Your task to perform on an android device: change alarm snooze length Image 0: 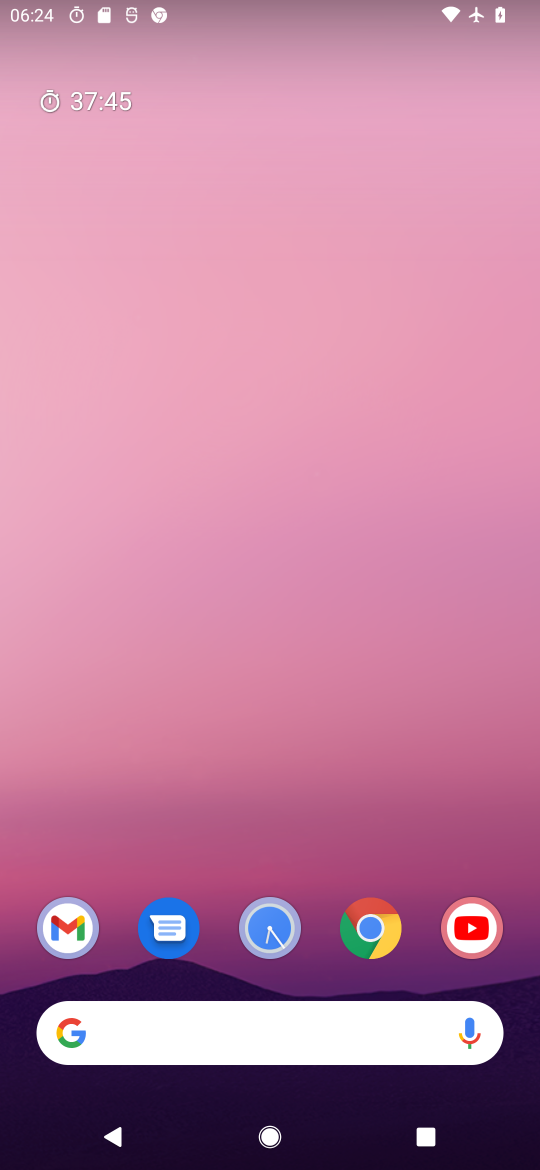
Step 0: click (257, 922)
Your task to perform on an android device: change alarm snooze length Image 1: 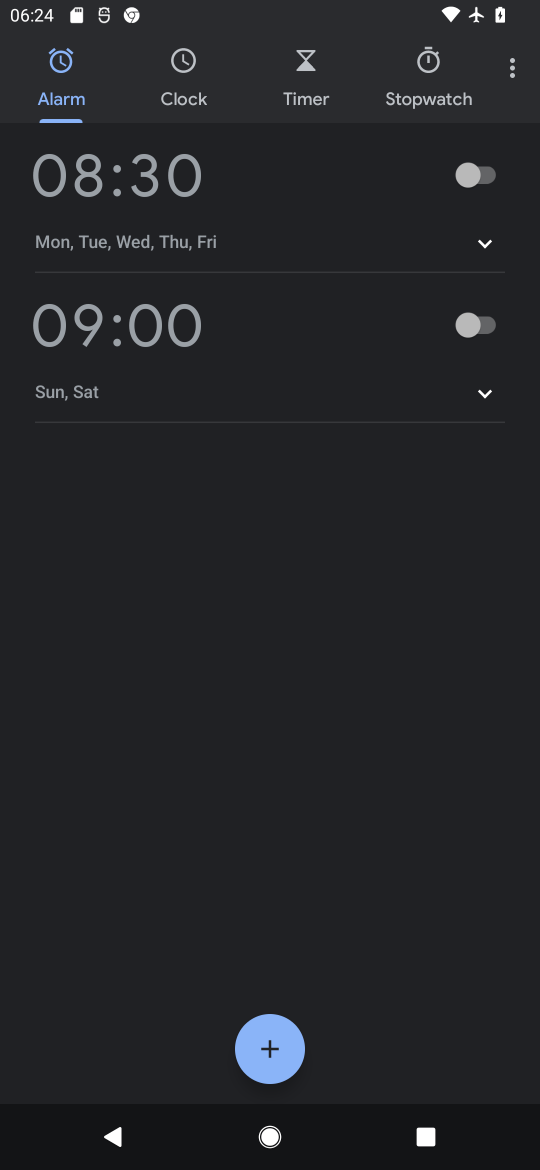
Step 1: click (502, 55)
Your task to perform on an android device: change alarm snooze length Image 2: 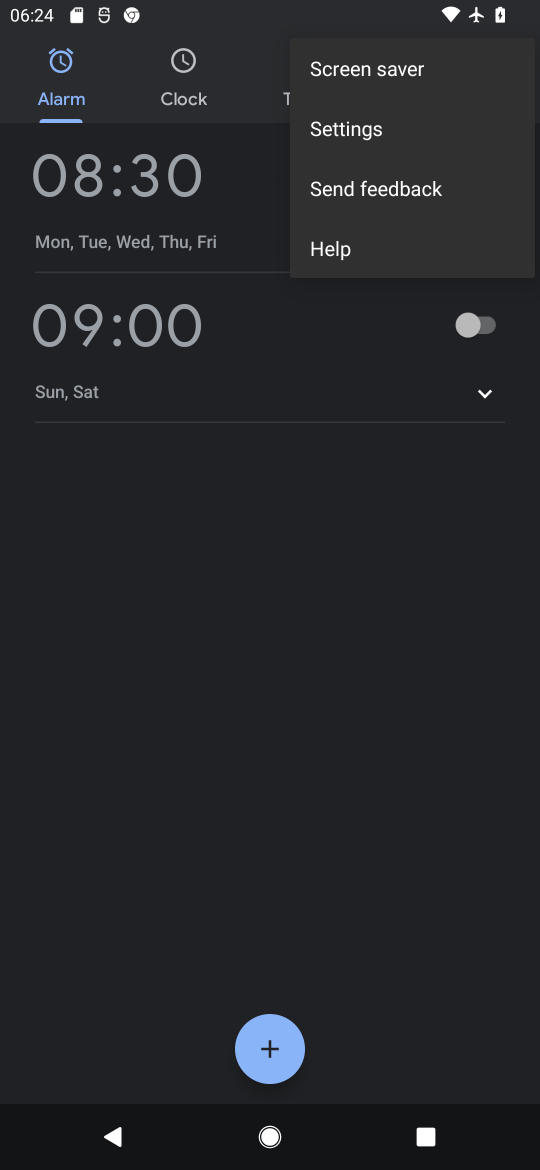
Step 2: click (390, 142)
Your task to perform on an android device: change alarm snooze length Image 3: 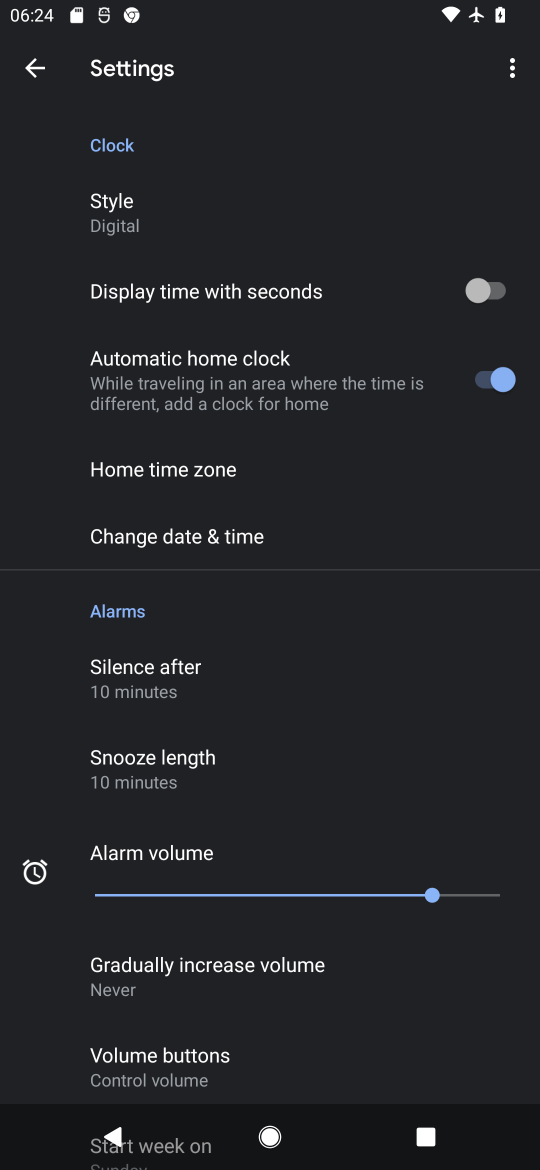
Step 3: click (207, 778)
Your task to perform on an android device: change alarm snooze length Image 4: 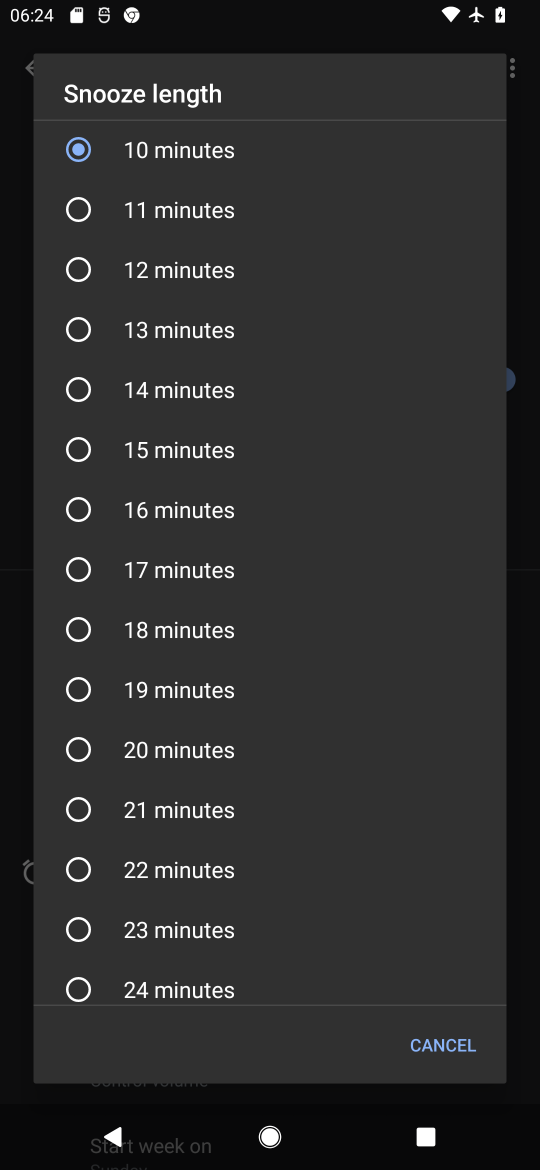
Step 4: click (131, 530)
Your task to perform on an android device: change alarm snooze length Image 5: 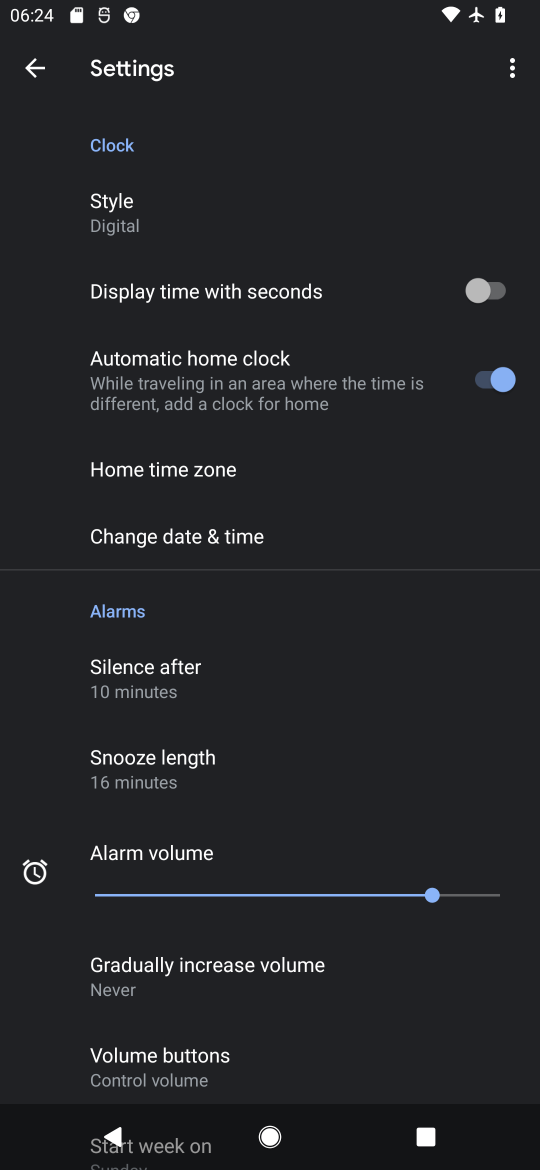
Step 5: task complete